Your task to perform on an android device: Search for sushi restaurants on Maps Image 0: 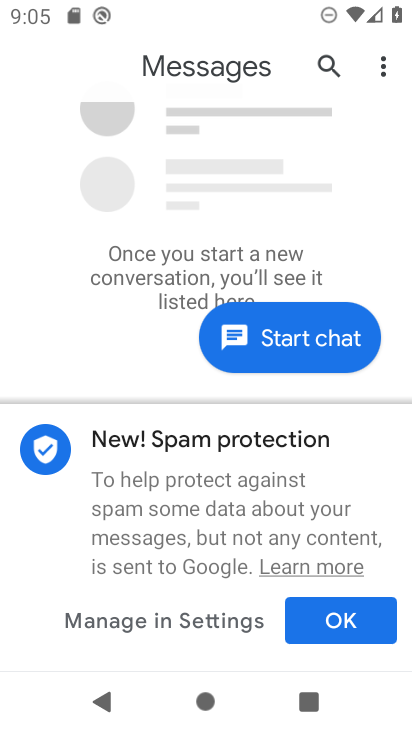
Step 0: press home button
Your task to perform on an android device: Search for sushi restaurants on Maps Image 1: 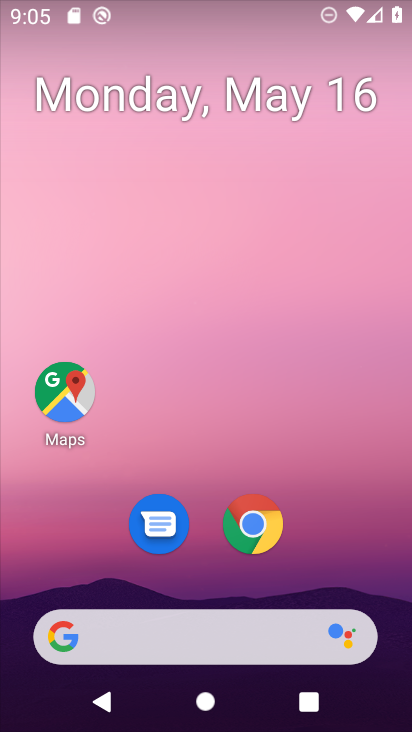
Step 1: click (69, 403)
Your task to perform on an android device: Search for sushi restaurants on Maps Image 2: 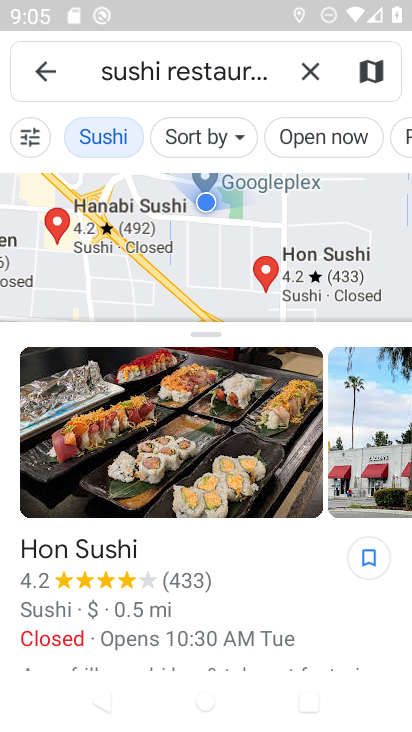
Step 2: task complete